Your task to perform on an android device: change text size in settings app Image 0: 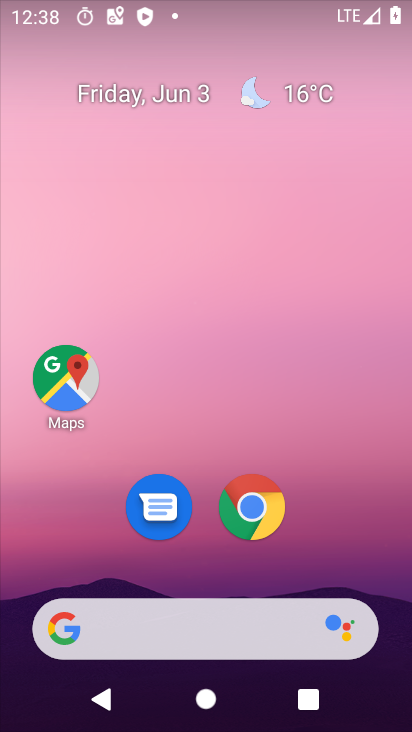
Step 0: drag from (391, 638) to (317, 73)
Your task to perform on an android device: change text size in settings app Image 1: 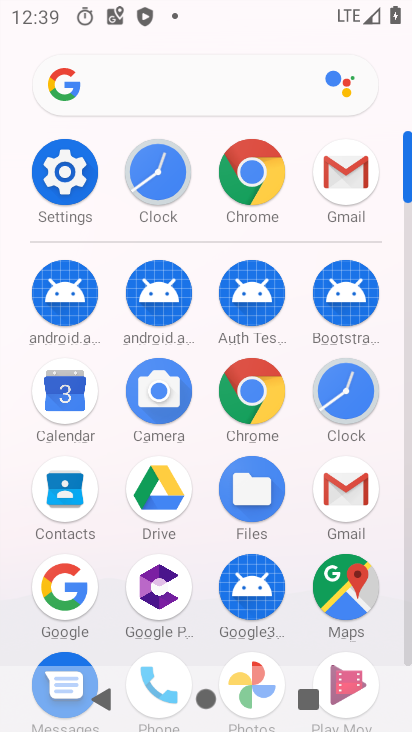
Step 1: click (53, 176)
Your task to perform on an android device: change text size in settings app Image 2: 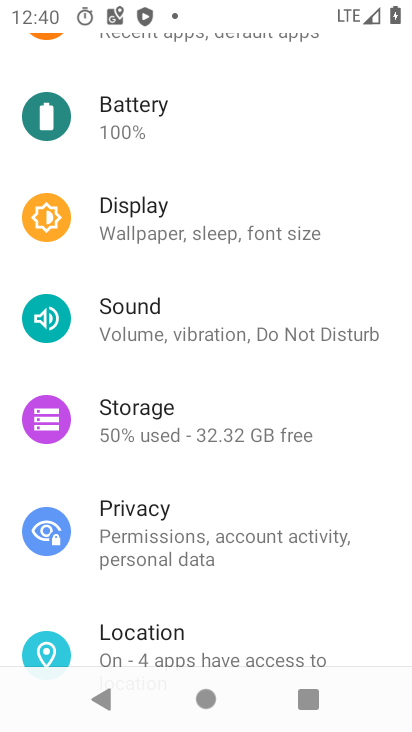
Step 2: click (206, 243)
Your task to perform on an android device: change text size in settings app Image 3: 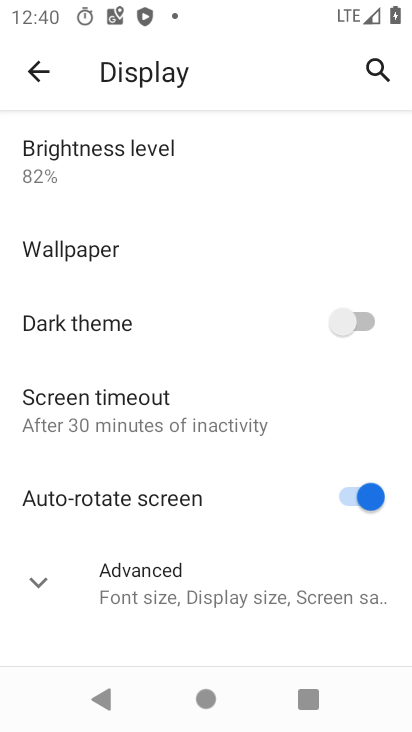
Step 3: click (117, 583)
Your task to perform on an android device: change text size in settings app Image 4: 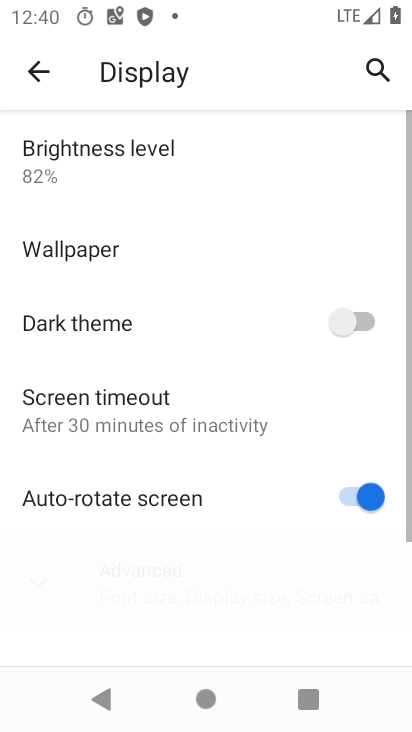
Step 4: drag from (117, 583) to (110, 209)
Your task to perform on an android device: change text size in settings app Image 5: 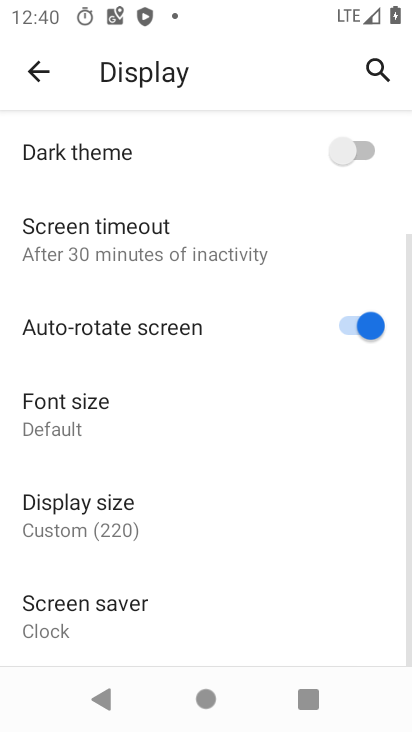
Step 5: click (121, 422)
Your task to perform on an android device: change text size in settings app Image 6: 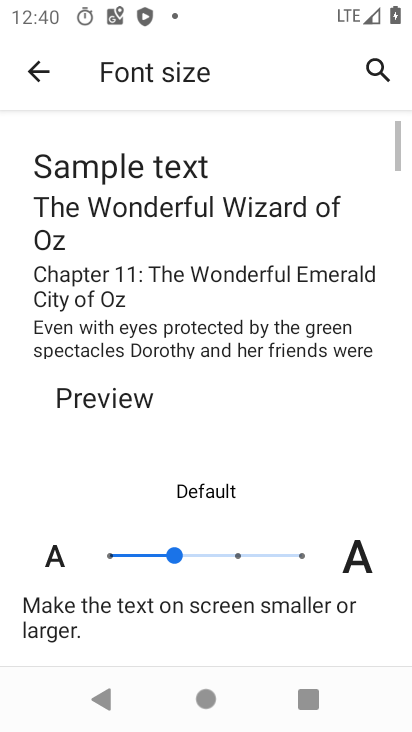
Step 6: click (240, 553)
Your task to perform on an android device: change text size in settings app Image 7: 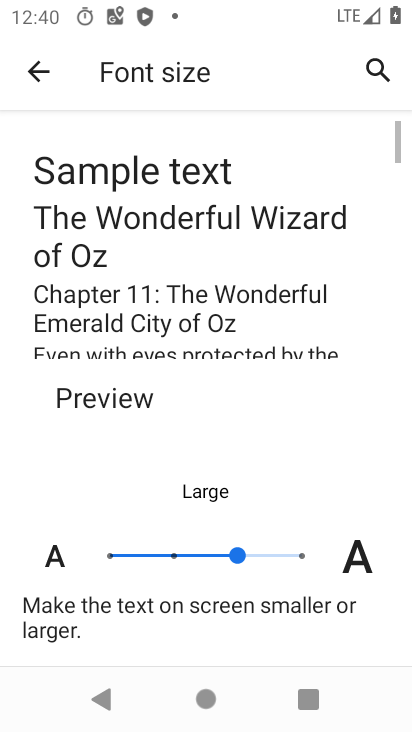
Step 7: task complete